Your task to perform on an android device: Go to Wikipedia Image 0: 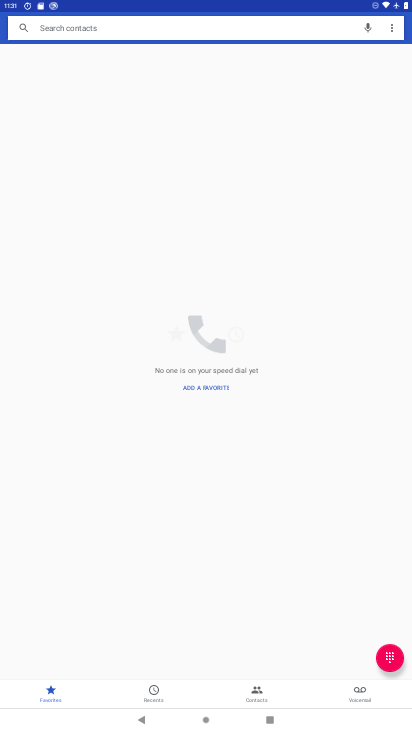
Step 0: press back button
Your task to perform on an android device: Go to Wikipedia Image 1: 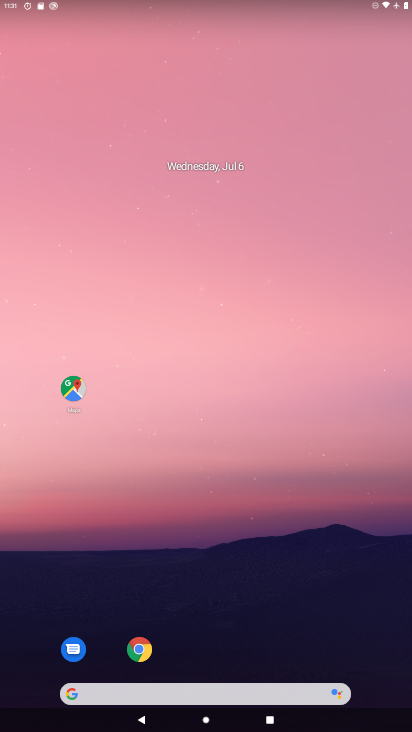
Step 1: drag from (372, 707) to (345, 179)
Your task to perform on an android device: Go to Wikipedia Image 2: 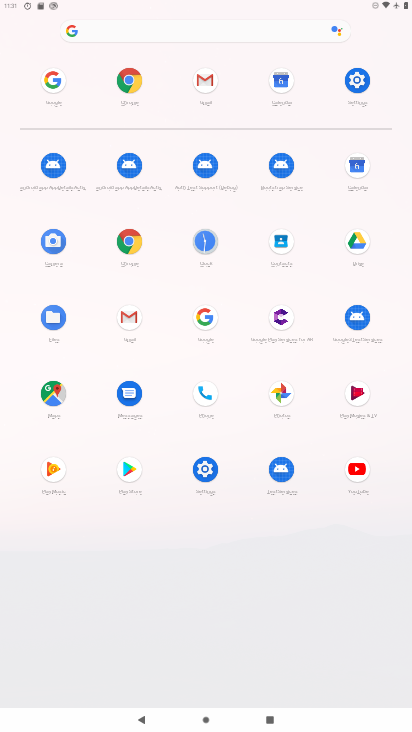
Step 2: click (135, 88)
Your task to perform on an android device: Go to Wikipedia Image 3: 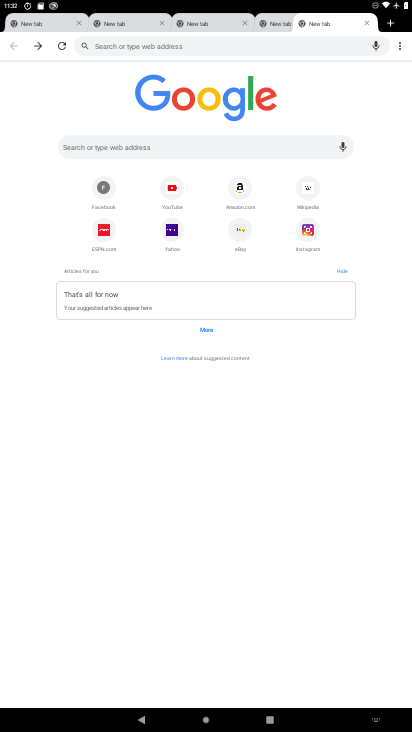
Step 3: type "Wikipedia"
Your task to perform on an android device: Go to Wikipedia Image 4: 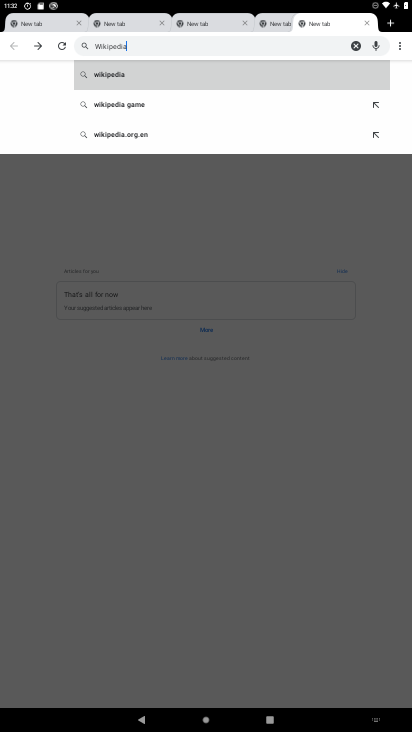
Step 4: click (137, 74)
Your task to perform on an android device: Go to Wikipedia Image 5: 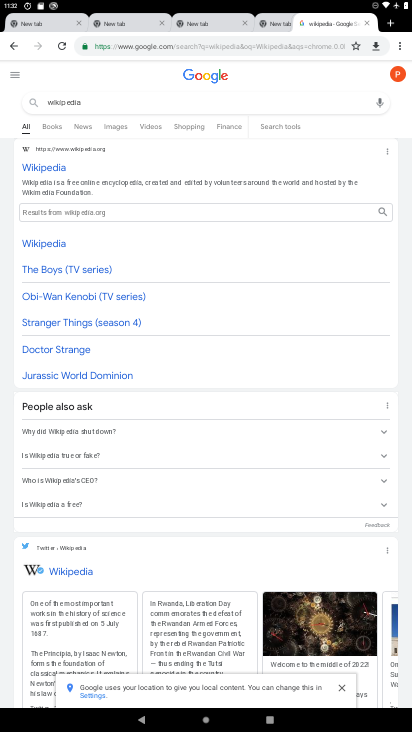
Step 5: task complete